Your task to perform on an android device: Open the Play Movies app and select the watchlist tab. Image 0: 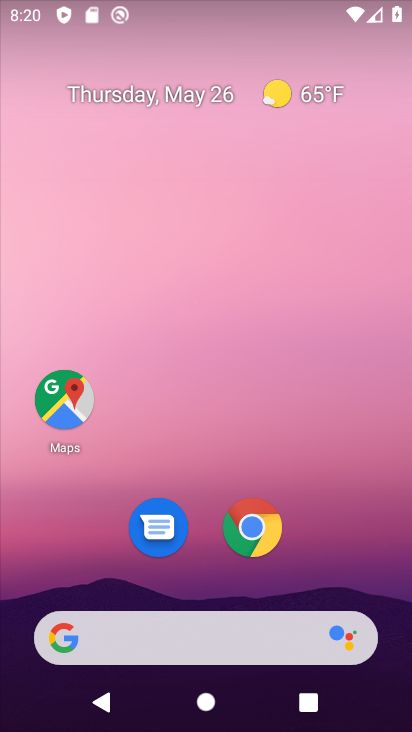
Step 0: drag from (360, 518) to (290, 101)
Your task to perform on an android device: Open the Play Movies app and select the watchlist tab. Image 1: 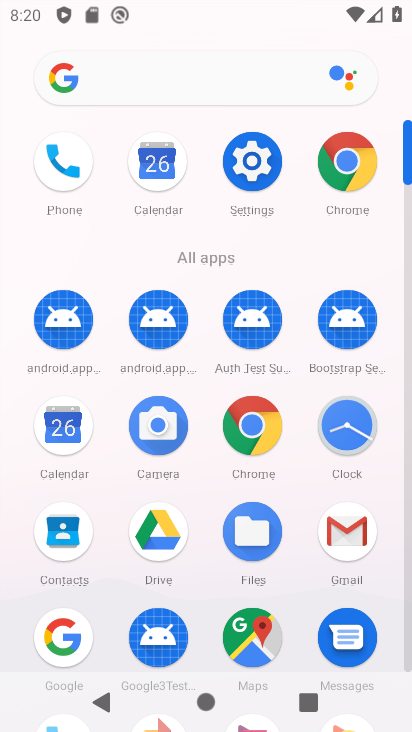
Step 1: drag from (393, 635) to (367, 280)
Your task to perform on an android device: Open the Play Movies app and select the watchlist tab. Image 2: 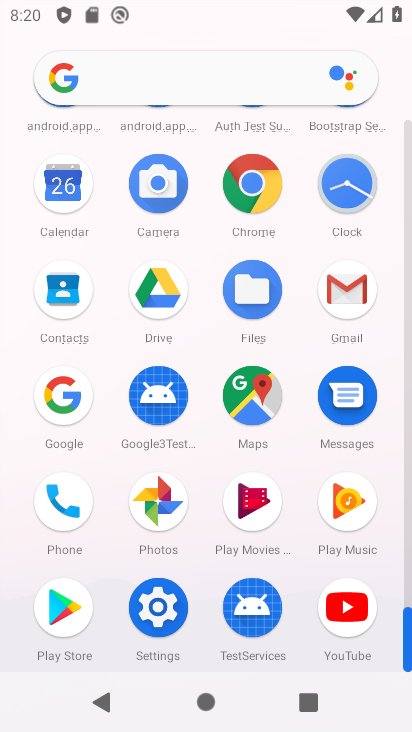
Step 2: click (271, 514)
Your task to perform on an android device: Open the Play Movies app and select the watchlist tab. Image 3: 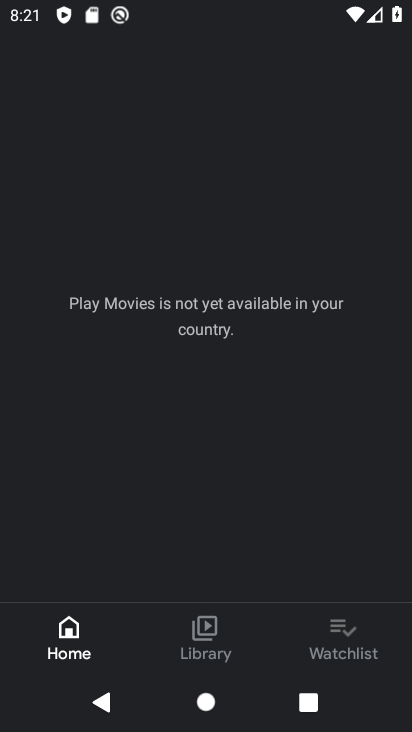
Step 3: click (342, 650)
Your task to perform on an android device: Open the Play Movies app and select the watchlist tab. Image 4: 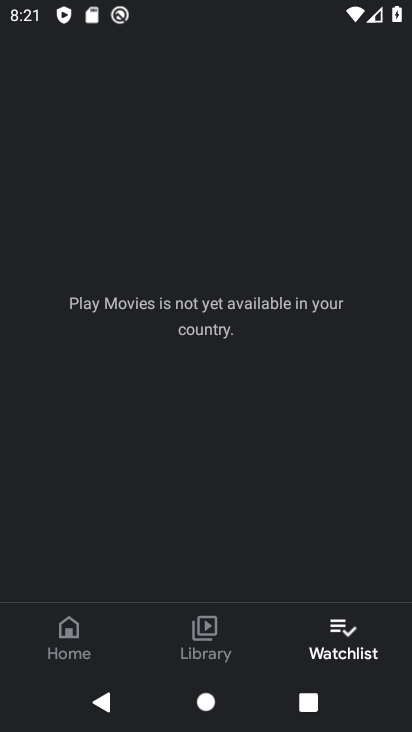
Step 4: task complete